Your task to perform on an android device: Open internet settings Image 0: 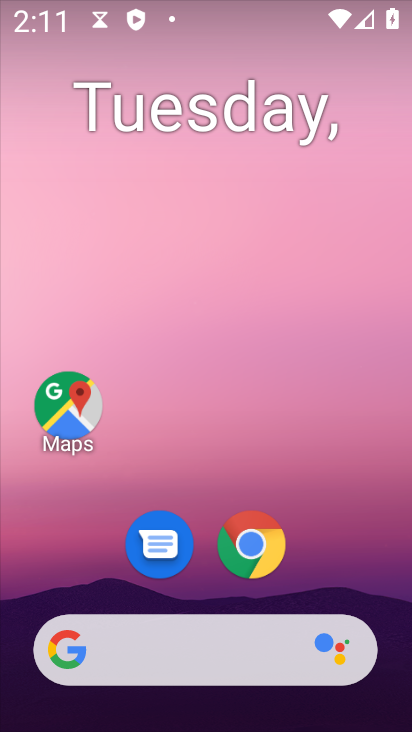
Step 0: drag from (311, 545) to (258, 41)
Your task to perform on an android device: Open internet settings Image 1: 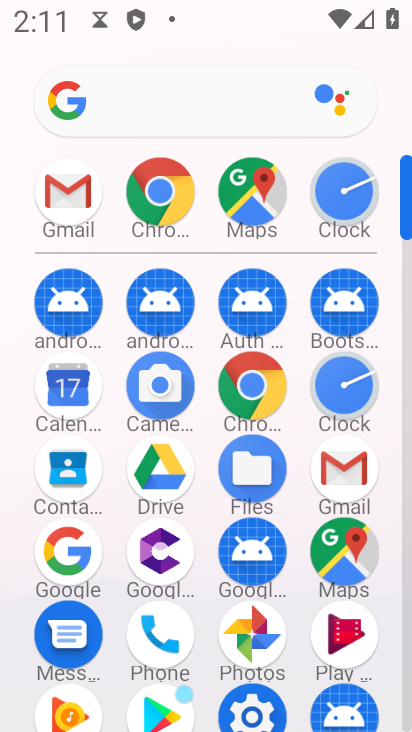
Step 1: drag from (11, 598) to (21, 273)
Your task to perform on an android device: Open internet settings Image 2: 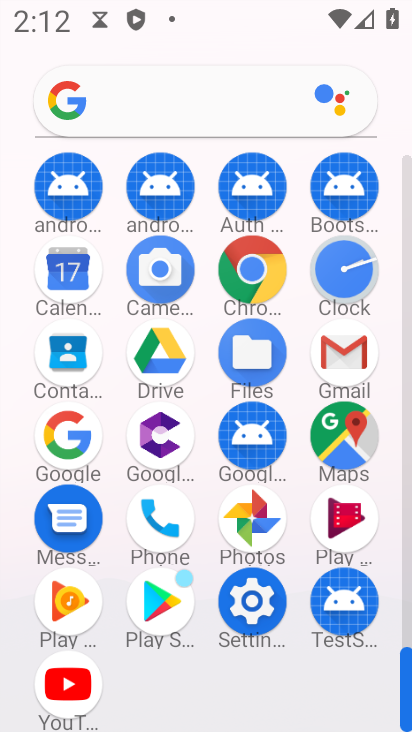
Step 2: click (251, 602)
Your task to perform on an android device: Open internet settings Image 3: 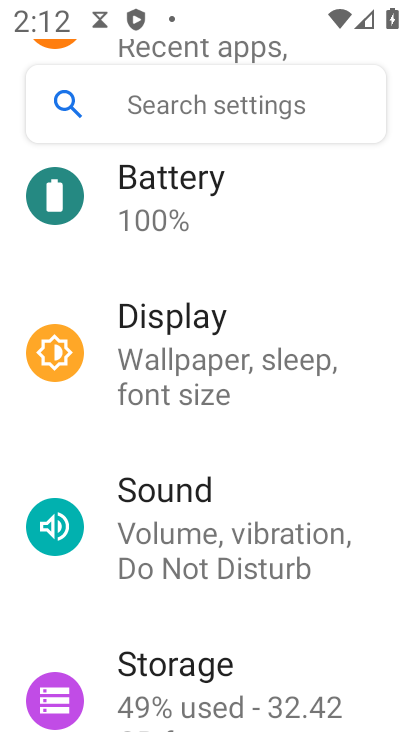
Step 3: drag from (269, 607) to (268, 163)
Your task to perform on an android device: Open internet settings Image 4: 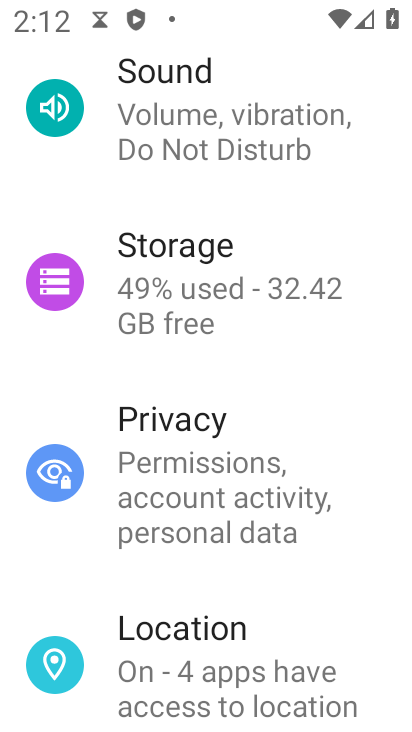
Step 4: drag from (260, 570) to (253, 175)
Your task to perform on an android device: Open internet settings Image 5: 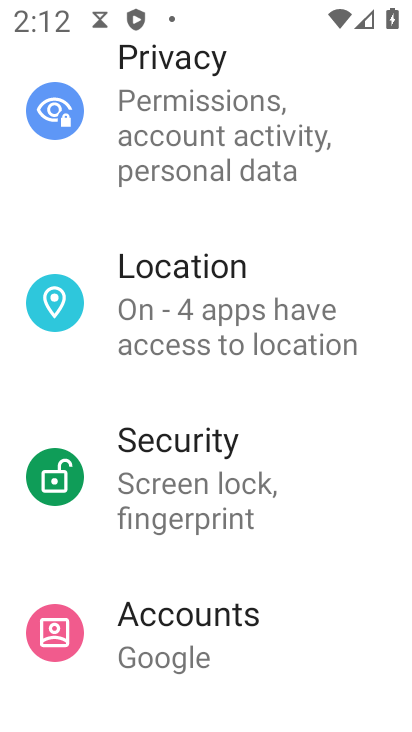
Step 5: drag from (240, 600) to (249, 128)
Your task to perform on an android device: Open internet settings Image 6: 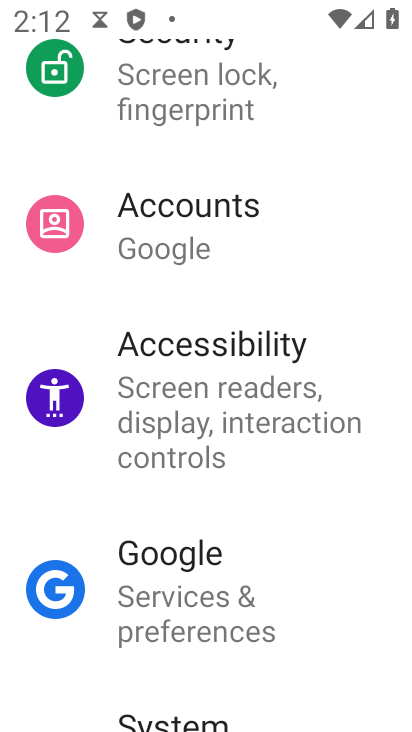
Step 6: drag from (228, 558) to (241, 146)
Your task to perform on an android device: Open internet settings Image 7: 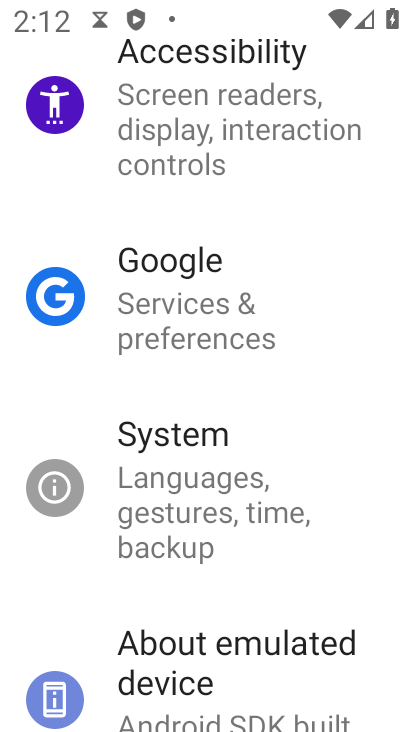
Step 7: drag from (264, 583) to (269, 183)
Your task to perform on an android device: Open internet settings Image 8: 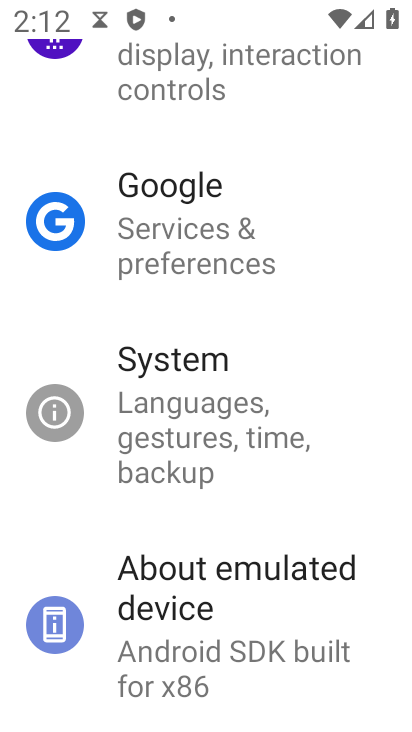
Step 8: drag from (266, 208) to (221, 655)
Your task to perform on an android device: Open internet settings Image 9: 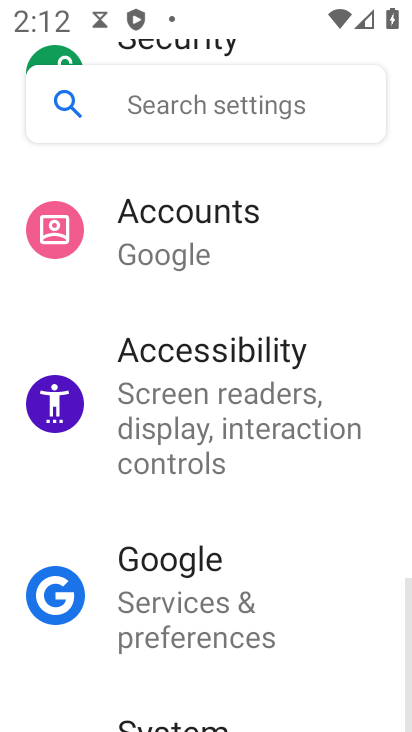
Step 9: drag from (233, 320) to (230, 654)
Your task to perform on an android device: Open internet settings Image 10: 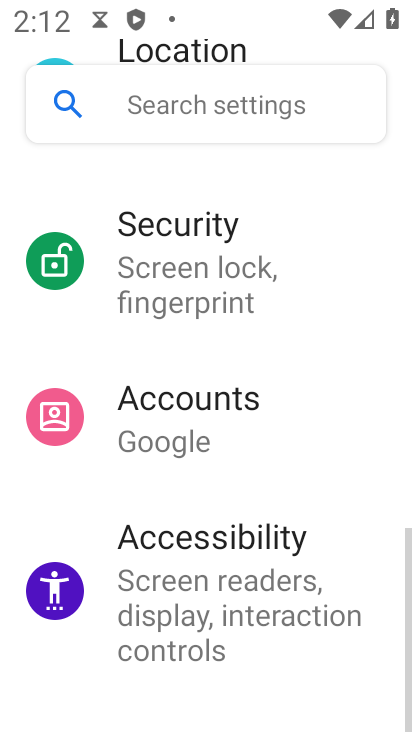
Step 10: drag from (265, 293) to (268, 634)
Your task to perform on an android device: Open internet settings Image 11: 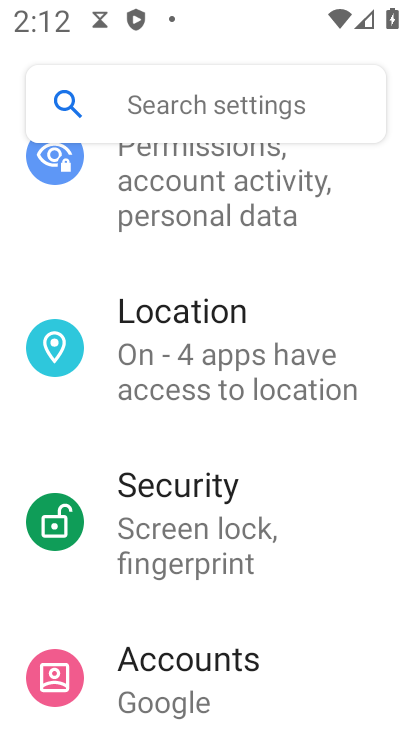
Step 11: drag from (287, 307) to (261, 616)
Your task to perform on an android device: Open internet settings Image 12: 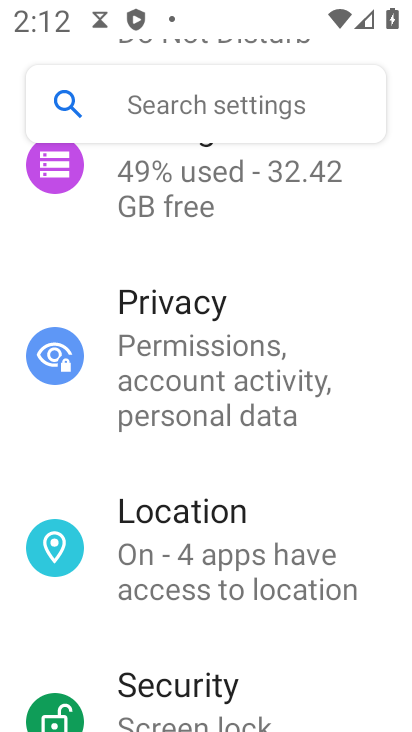
Step 12: drag from (258, 331) to (216, 642)
Your task to perform on an android device: Open internet settings Image 13: 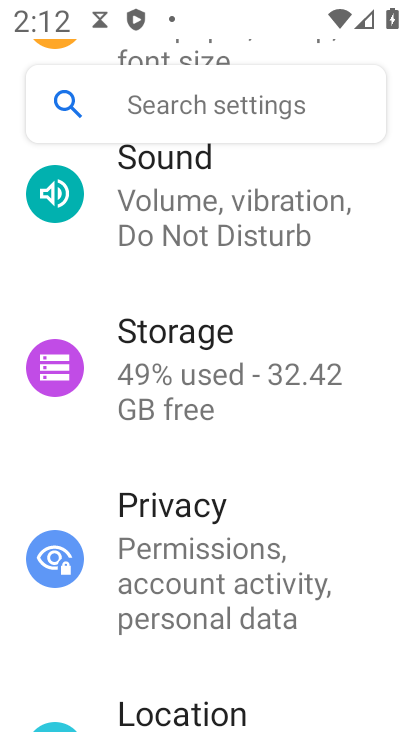
Step 13: drag from (278, 225) to (266, 607)
Your task to perform on an android device: Open internet settings Image 14: 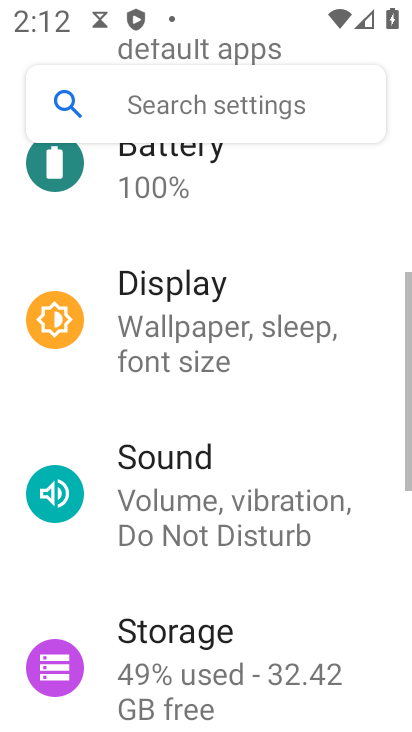
Step 14: drag from (244, 481) to (242, 675)
Your task to perform on an android device: Open internet settings Image 15: 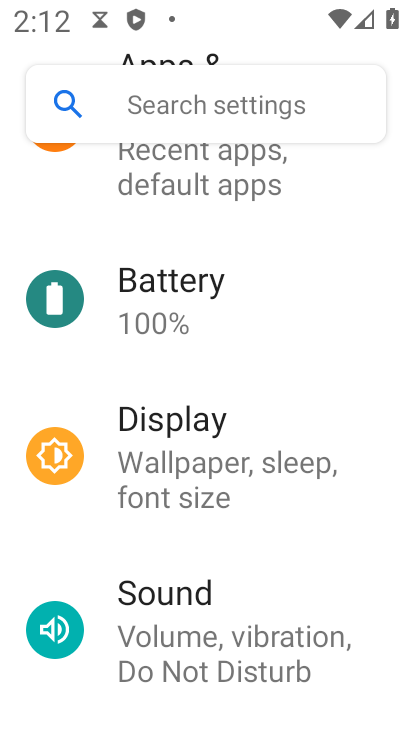
Step 15: drag from (252, 261) to (253, 654)
Your task to perform on an android device: Open internet settings Image 16: 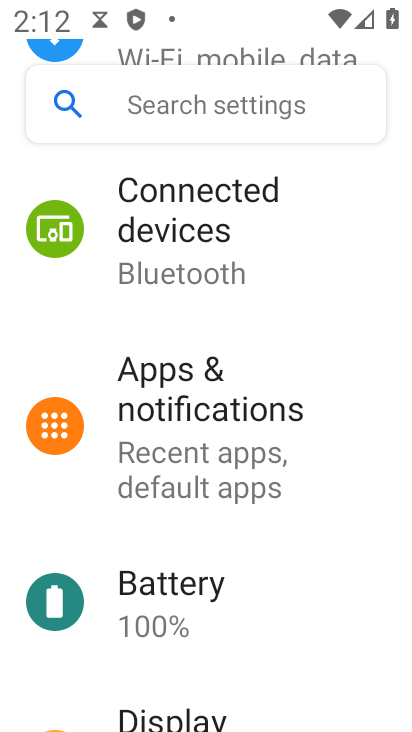
Step 16: drag from (256, 332) to (256, 626)
Your task to perform on an android device: Open internet settings Image 17: 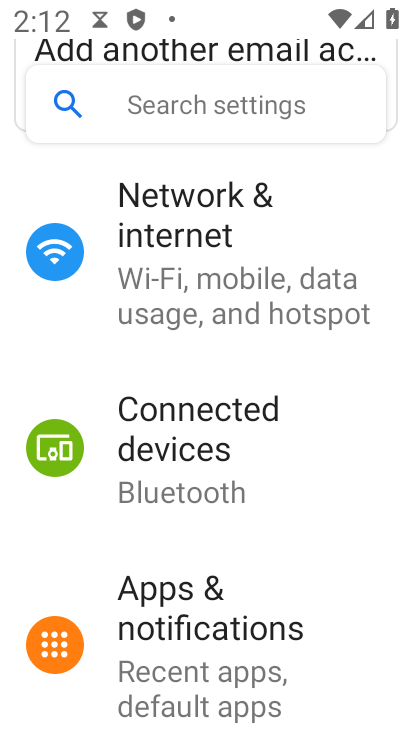
Step 17: click (264, 243)
Your task to perform on an android device: Open internet settings Image 18: 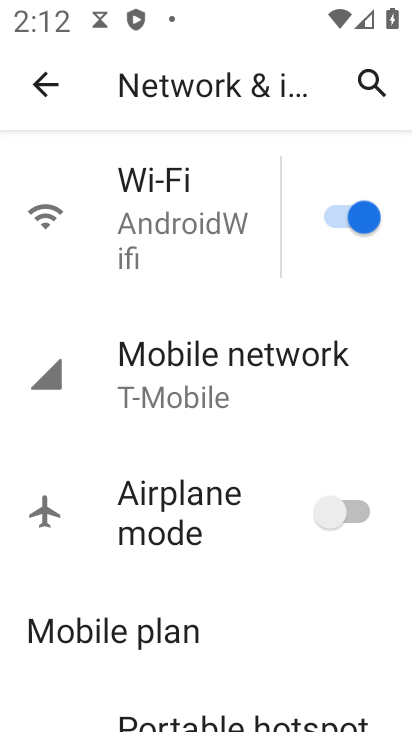
Step 18: drag from (213, 619) to (209, 283)
Your task to perform on an android device: Open internet settings Image 19: 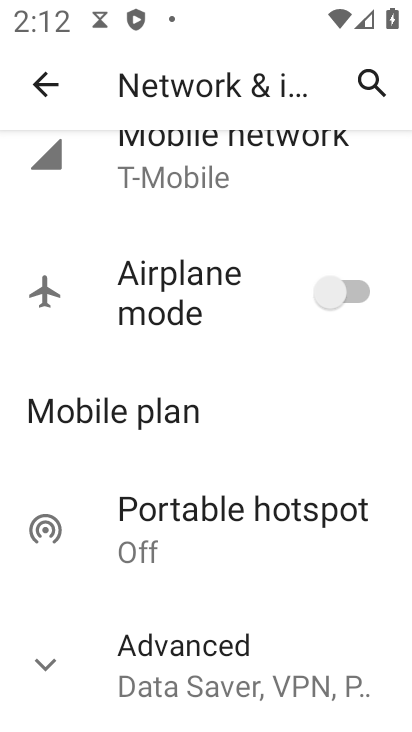
Step 19: drag from (176, 517) to (214, 232)
Your task to perform on an android device: Open internet settings Image 20: 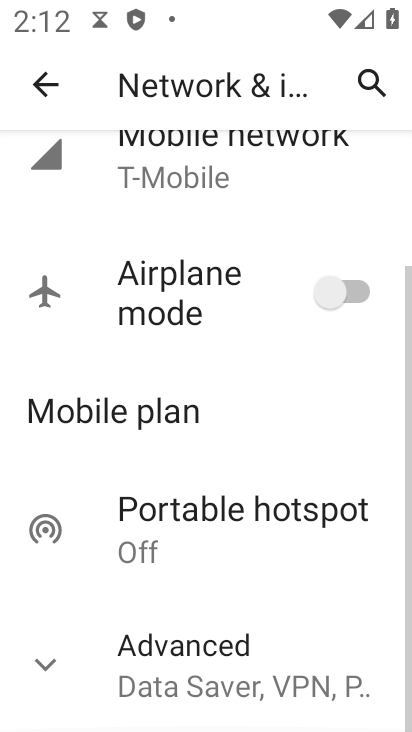
Step 20: drag from (201, 574) to (223, 242)
Your task to perform on an android device: Open internet settings Image 21: 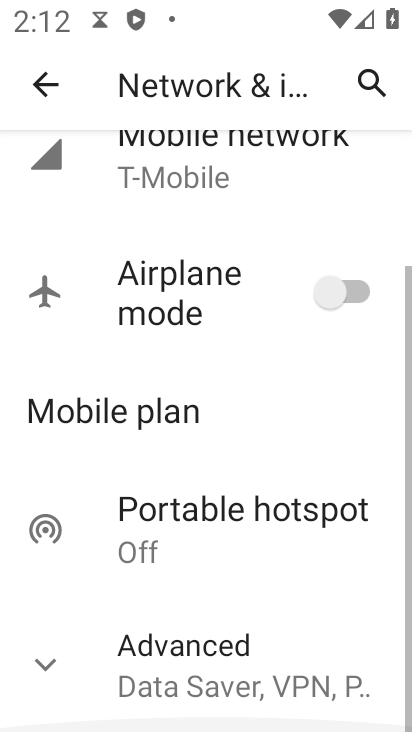
Step 21: click (61, 661)
Your task to perform on an android device: Open internet settings Image 22: 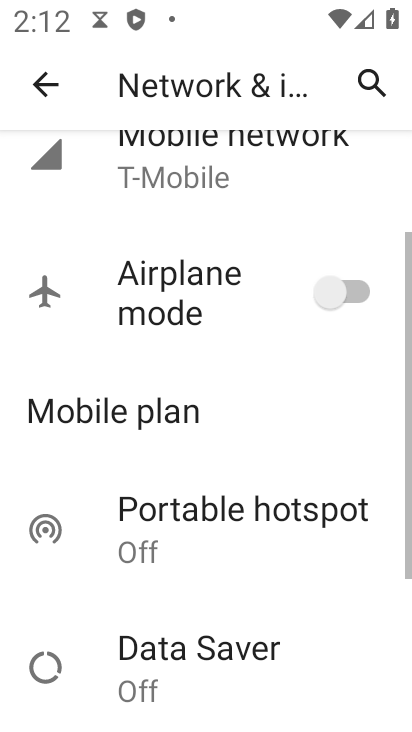
Step 22: task complete